Your task to perform on an android device: Open the Play Movies app and select the watchlist tab. Image 0: 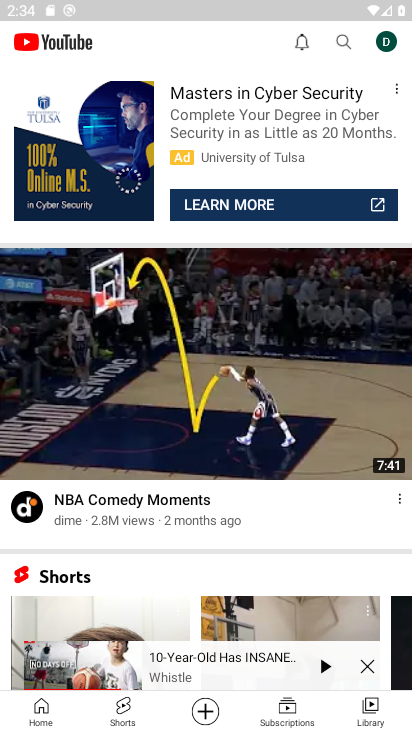
Step 0: press home button
Your task to perform on an android device: Open the Play Movies app and select the watchlist tab. Image 1: 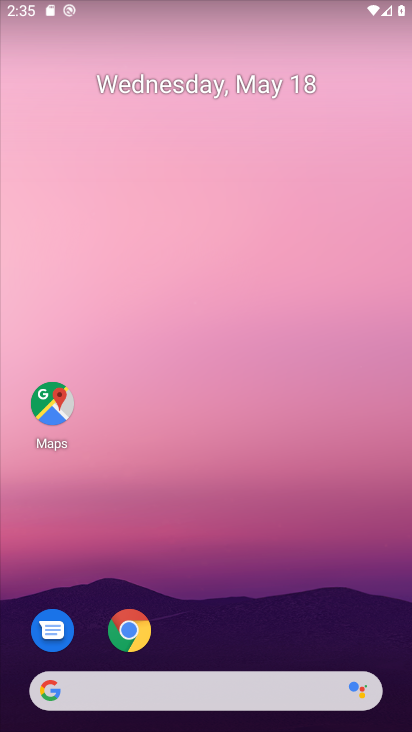
Step 1: drag from (235, 656) to (327, 60)
Your task to perform on an android device: Open the Play Movies app and select the watchlist tab. Image 2: 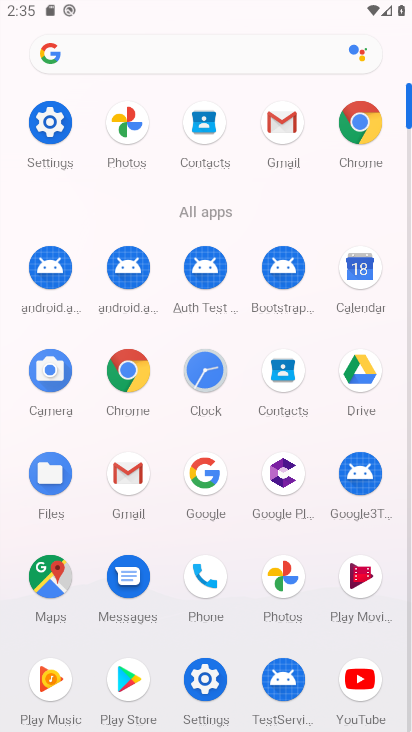
Step 2: click (358, 574)
Your task to perform on an android device: Open the Play Movies app and select the watchlist tab. Image 3: 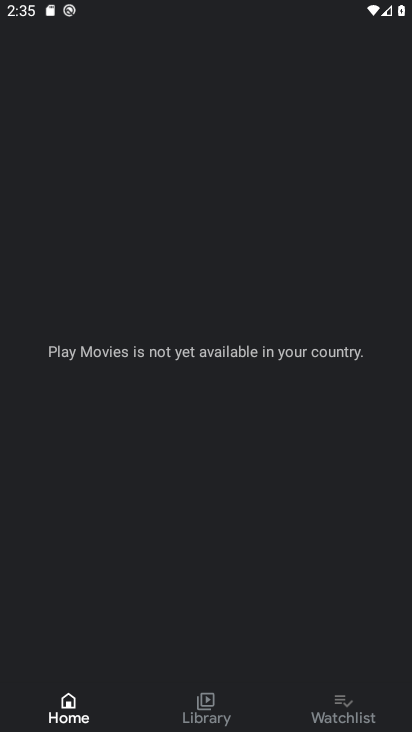
Step 3: click (334, 707)
Your task to perform on an android device: Open the Play Movies app and select the watchlist tab. Image 4: 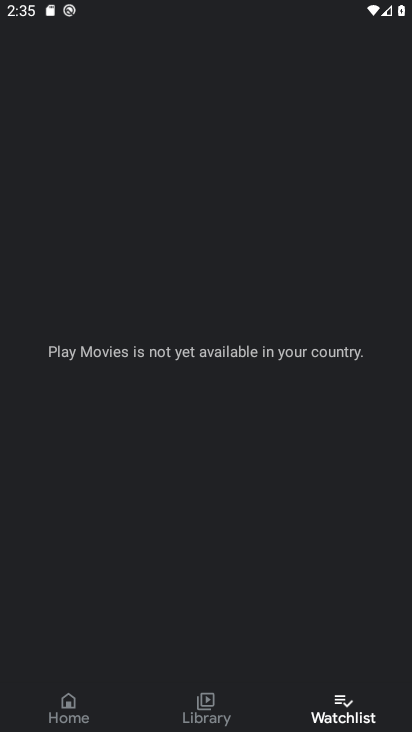
Step 4: task complete